Your task to perform on an android device: Show me productivity apps on the Play Store Image 0: 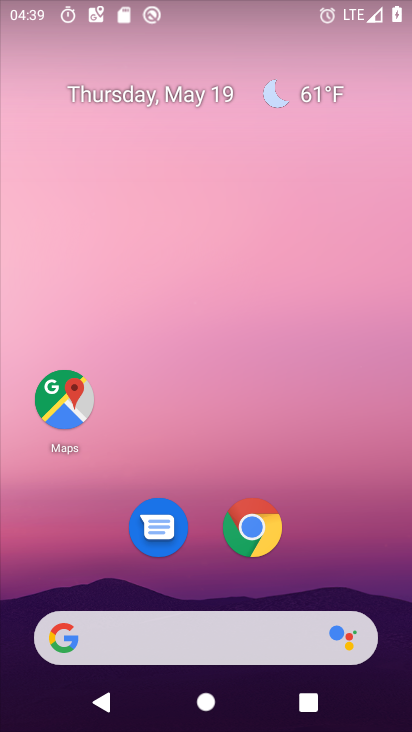
Step 0: drag from (178, 597) to (301, 5)
Your task to perform on an android device: Show me productivity apps on the Play Store Image 1: 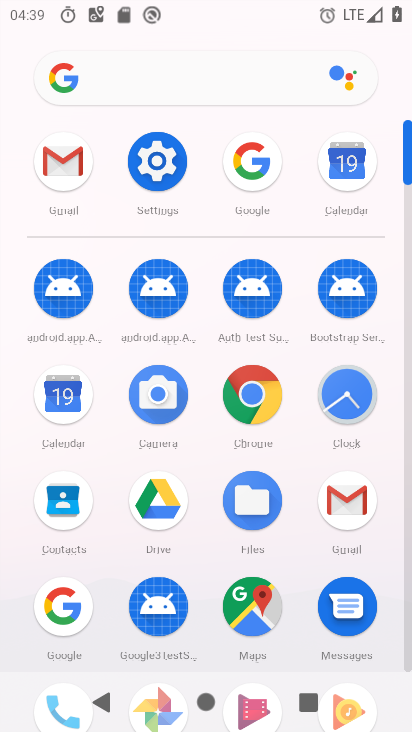
Step 1: drag from (167, 534) to (269, 120)
Your task to perform on an android device: Show me productivity apps on the Play Store Image 2: 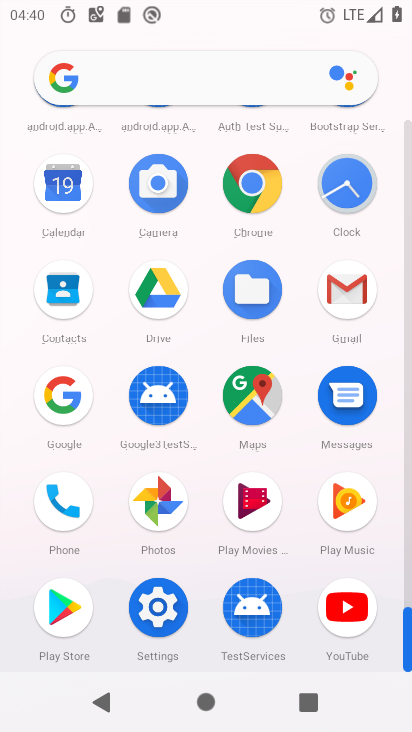
Step 2: click (73, 616)
Your task to perform on an android device: Show me productivity apps on the Play Store Image 3: 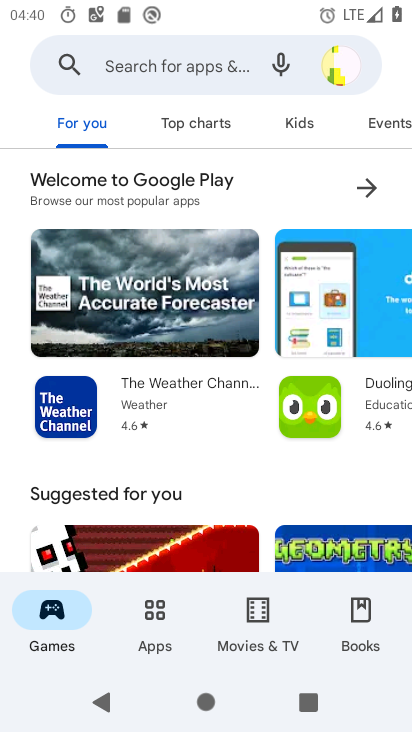
Step 3: drag from (154, 543) to (213, 203)
Your task to perform on an android device: Show me productivity apps on the Play Store Image 4: 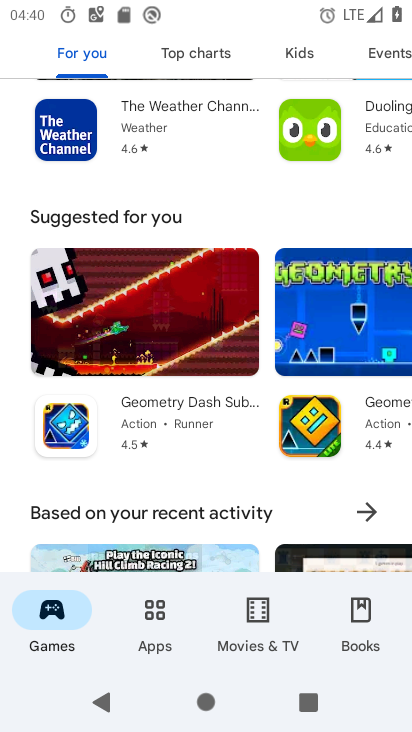
Step 4: drag from (200, 516) to (268, 63)
Your task to perform on an android device: Show me productivity apps on the Play Store Image 5: 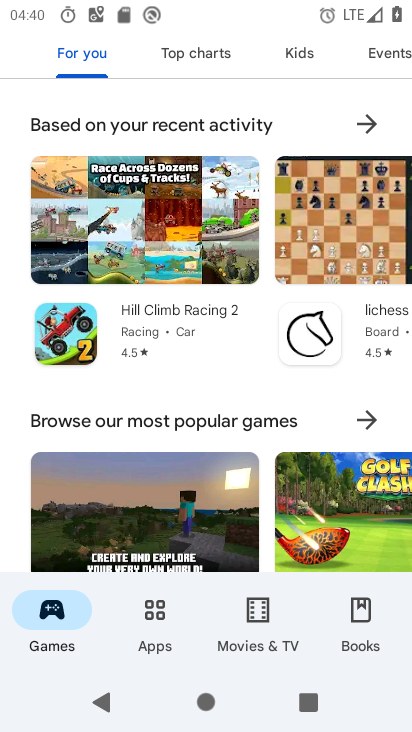
Step 5: drag from (279, 491) to (374, 40)
Your task to perform on an android device: Show me productivity apps on the Play Store Image 6: 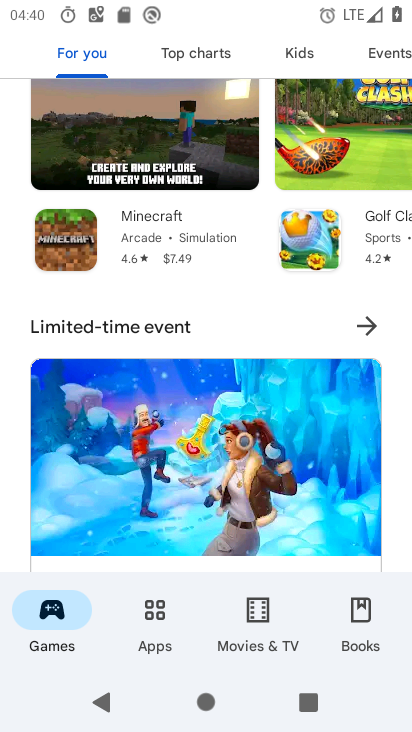
Step 6: drag from (266, 478) to (324, 119)
Your task to perform on an android device: Show me productivity apps on the Play Store Image 7: 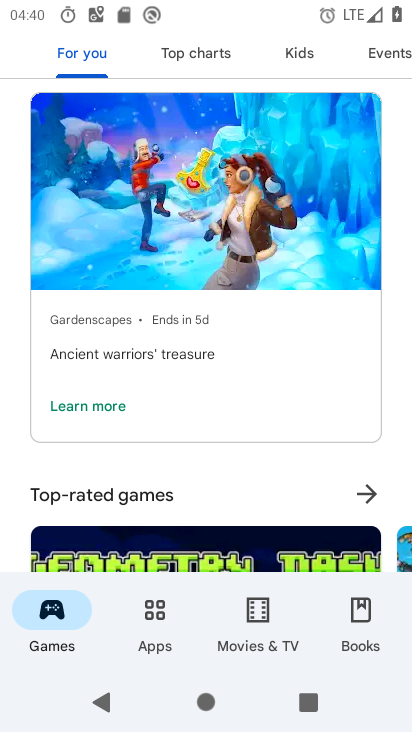
Step 7: drag from (183, 511) to (279, 157)
Your task to perform on an android device: Show me productivity apps on the Play Store Image 8: 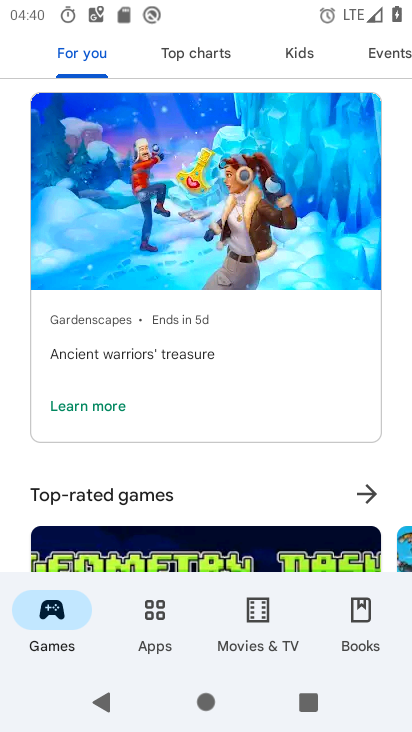
Step 8: drag from (195, 516) to (297, 81)
Your task to perform on an android device: Show me productivity apps on the Play Store Image 9: 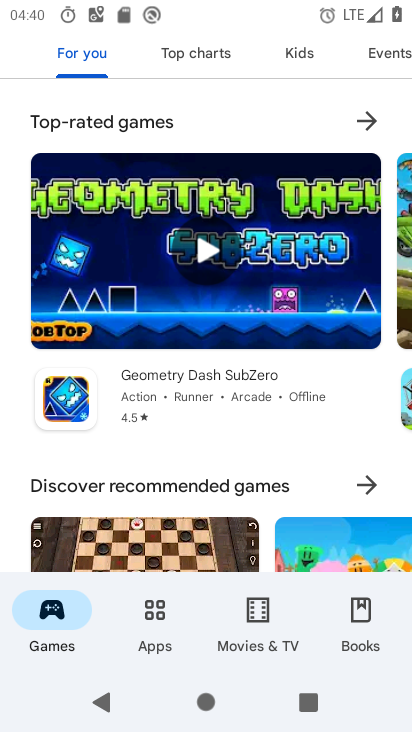
Step 9: drag from (260, 494) to (355, 19)
Your task to perform on an android device: Show me productivity apps on the Play Store Image 10: 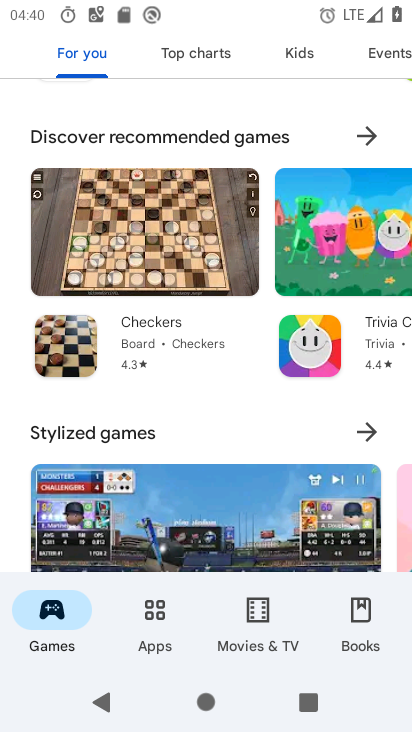
Step 10: drag from (232, 126) to (226, 589)
Your task to perform on an android device: Show me productivity apps on the Play Store Image 11: 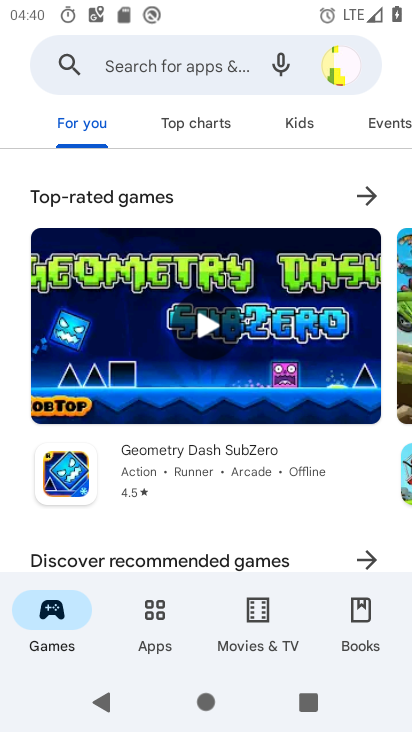
Step 11: drag from (235, 237) to (235, 680)
Your task to perform on an android device: Show me productivity apps on the Play Store Image 12: 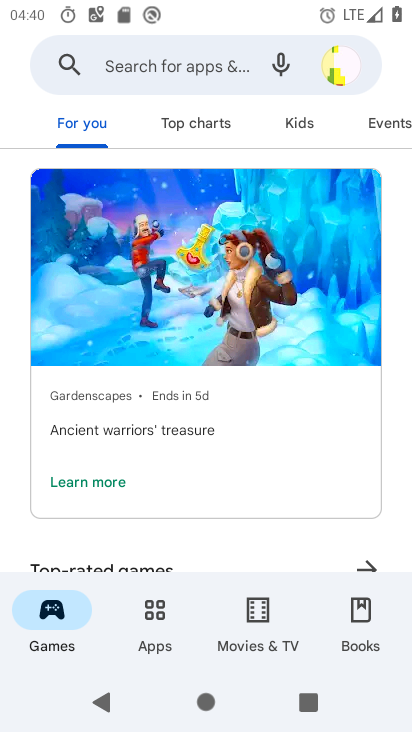
Step 12: drag from (238, 232) to (199, 717)
Your task to perform on an android device: Show me productivity apps on the Play Store Image 13: 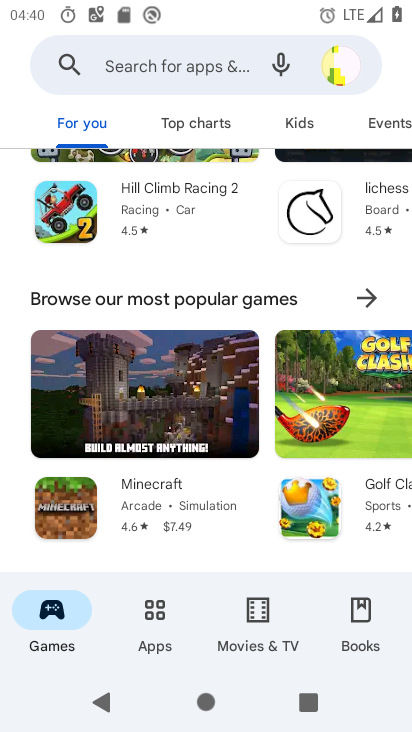
Step 13: click (155, 615)
Your task to perform on an android device: Show me productivity apps on the Play Store Image 14: 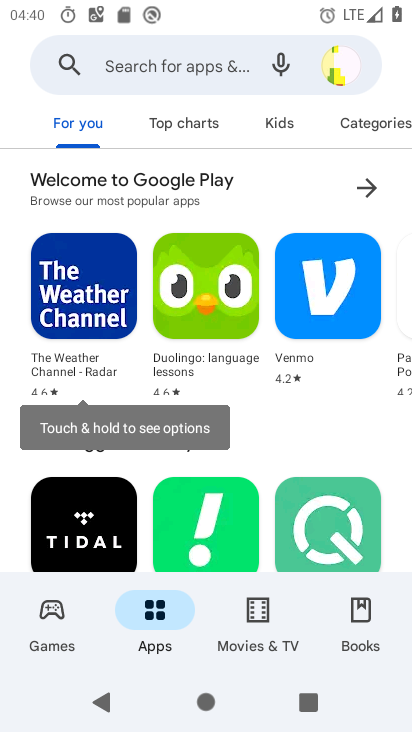
Step 14: drag from (254, 517) to (370, 55)
Your task to perform on an android device: Show me productivity apps on the Play Store Image 15: 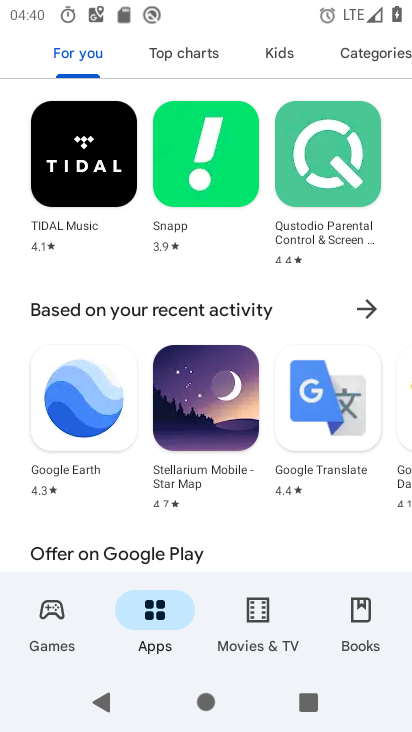
Step 15: drag from (303, 544) to (364, 0)
Your task to perform on an android device: Show me productivity apps on the Play Store Image 16: 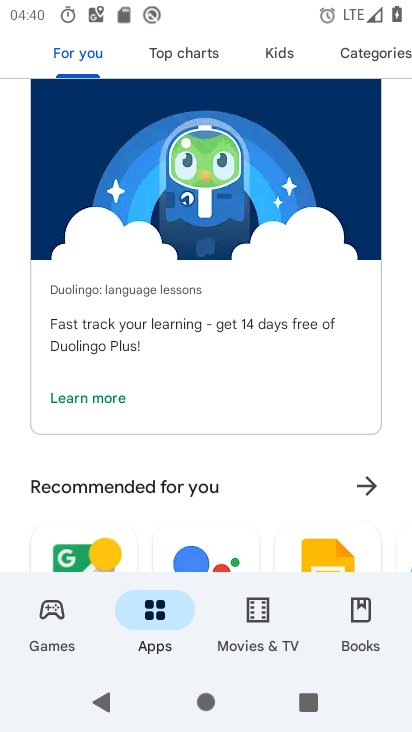
Step 16: drag from (290, 525) to (356, 47)
Your task to perform on an android device: Show me productivity apps on the Play Store Image 17: 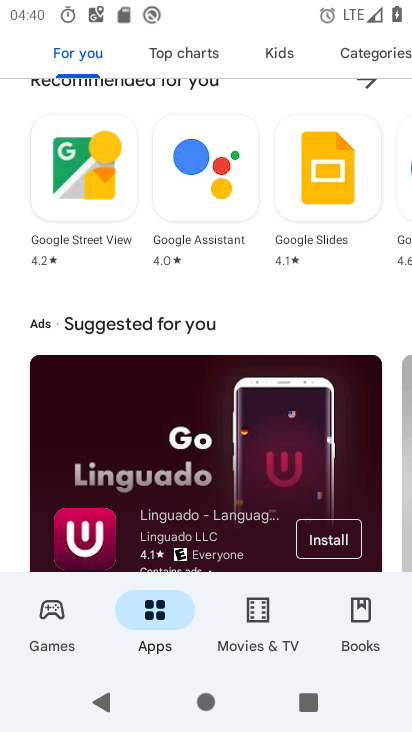
Step 17: drag from (216, 561) to (306, 12)
Your task to perform on an android device: Show me productivity apps on the Play Store Image 18: 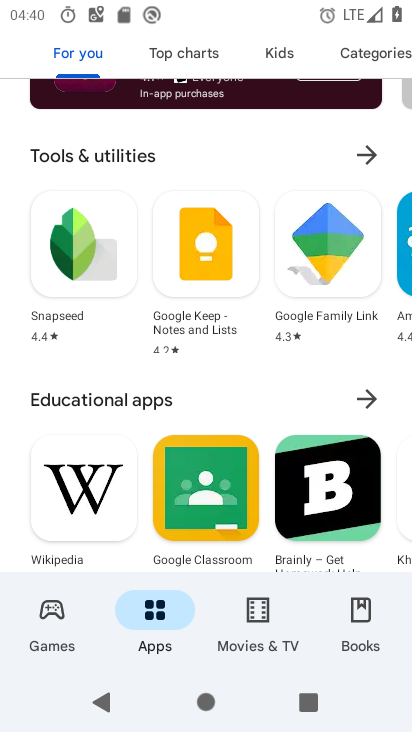
Step 18: drag from (232, 501) to (344, 9)
Your task to perform on an android device: Show me productivity apps on the Play Store Image 19: 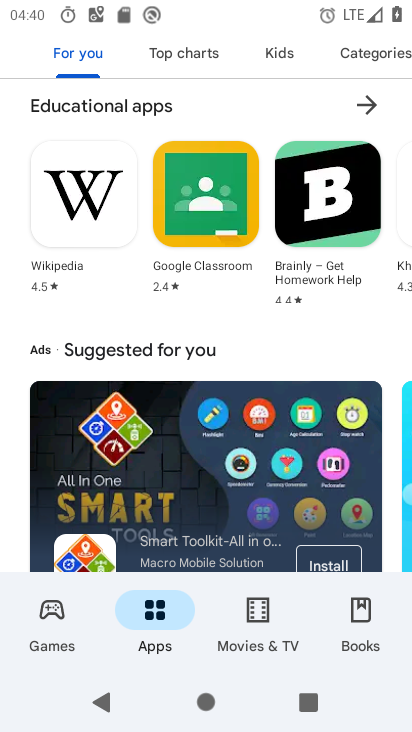
Step 19: drag from (198, 475) to (252, 202)
Your task to perform on an android device: Show me productivity apps on the Play Store Image 20: 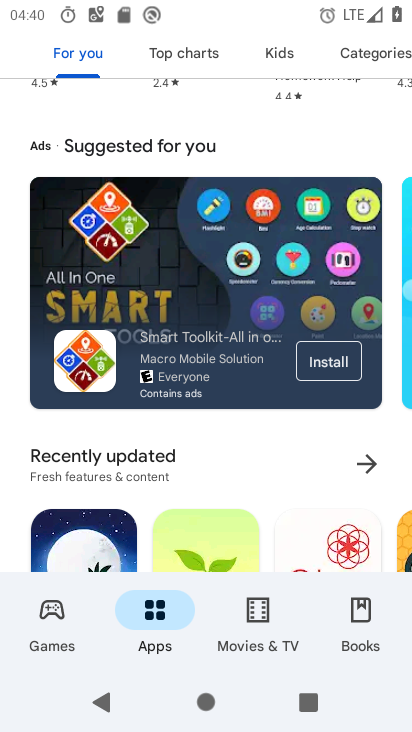
Step 20: drag from (233, 506) to (364, 22)
Your task to perform on an android device: Show me productivity apps on the Play Store Image 21: 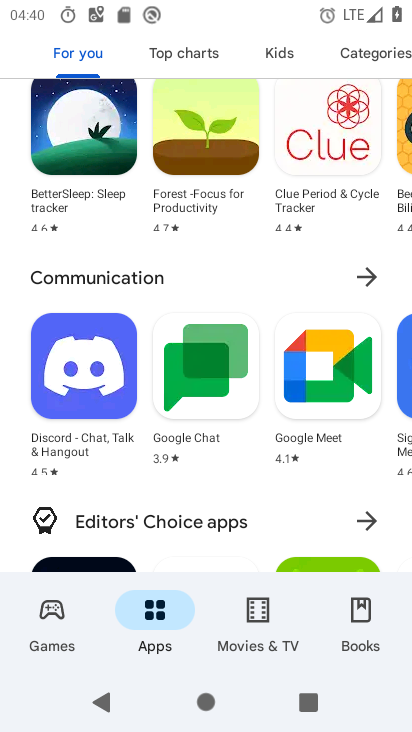
Step 21: drag from (224, 514) to (327, 48)
Your task to perform on an android device: Show me productivity apps on the Play Store Image 22: 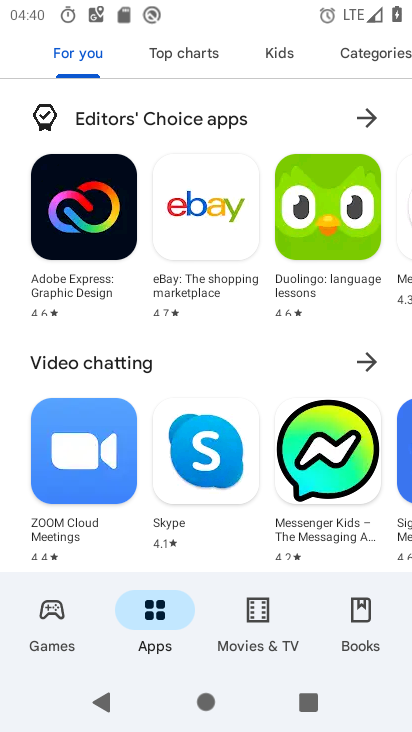
Step 22: drag from (270, 442) to (349, 70)
Your task to perform on an android device: Show me productivity apps on the Play Store Image 23: 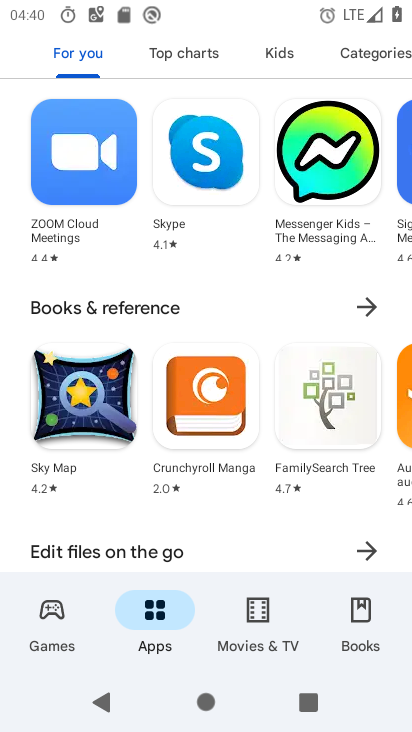
Step 23: drag from (223, 528) to (357, 15)
Your task to perform on an android device: Show me productivity apps on the Play Store Image 24: 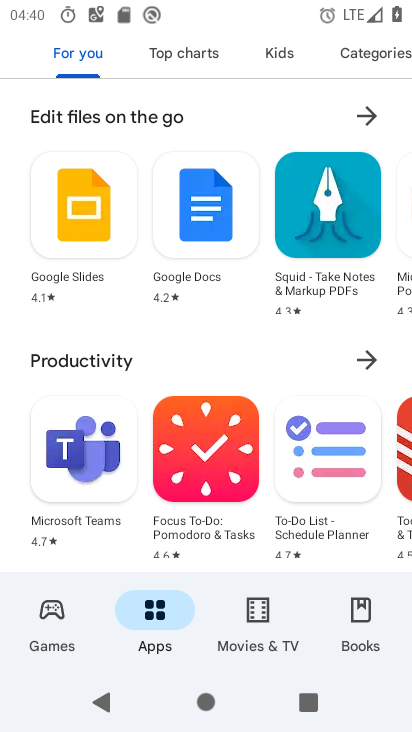
Step 24: click (363, 357)
Your task to perform on an android device: Show me productivity apps on the Play Store Image 25: 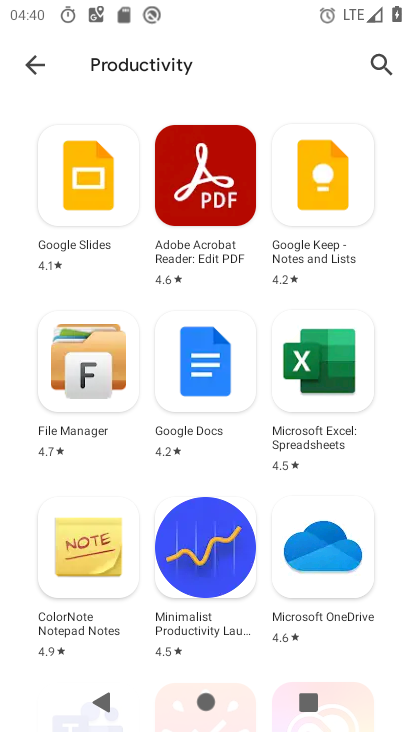
Step 25: task complete